Your task to perform on an android device: turn off notifications settings in the gmail app Image 0: 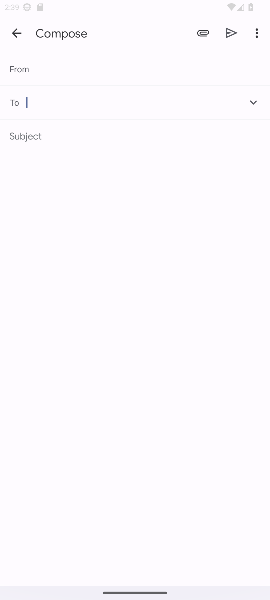
Step 0: click (133, 275)
Your task to perform on an android device: turn off notifications settings in the gmail app Image 1: 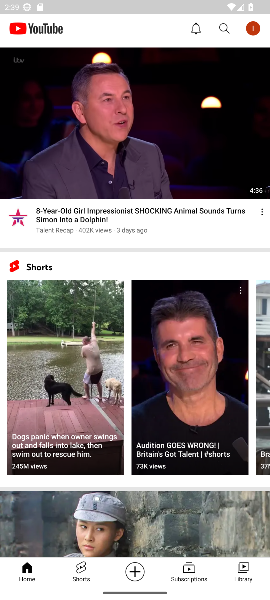
Step 1: press home button
Your task to perform on an android device: turn off notifications settings in the gmail app Image 2: 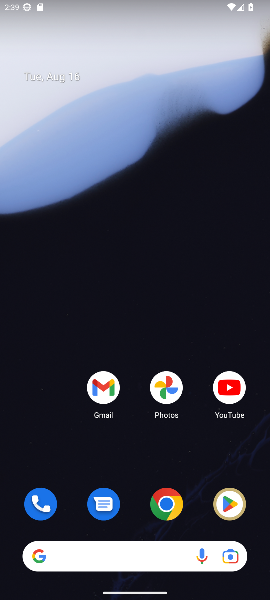
Step 2: click (100, 388)
Your task to perform on an android device: turn off notifications settings in the gmail app Image 3: 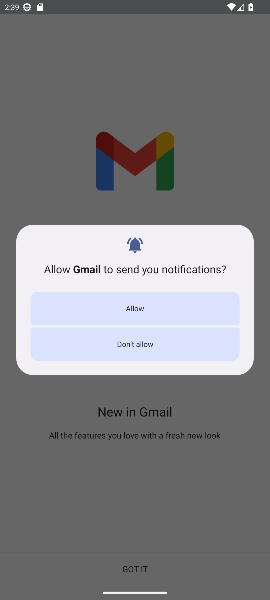
Step 3: click (137, 344)
Your task to perform on an android device: turn off notifications settings in the gmail app Image 4: 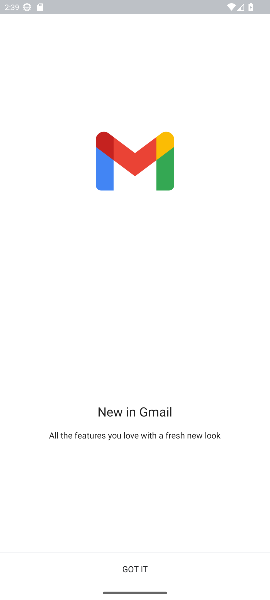
Step 4: click (130, 566)
Your task to perform on an android device: turn off notifications settings in the gmail app Image 5: 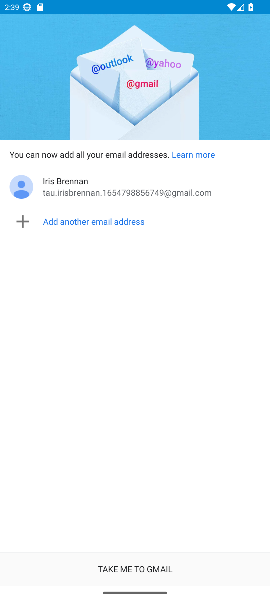
Step 5: click (120, 558)
Your task to perform on an android device: turn off notifications settings in the gmail app Image 6: 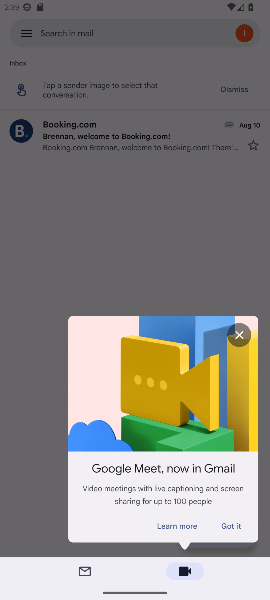
Step 6: click (243, 333)
Your task to perform on an android device: turn off notifications settings in the gmail app Image 7: 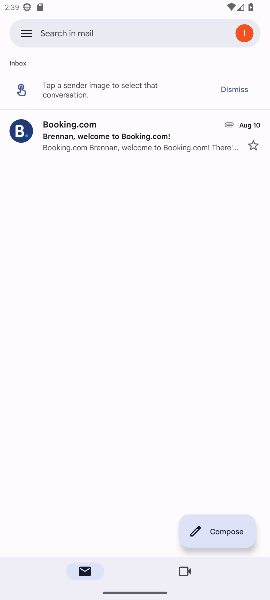
Step 7: click (23, 33)
Your task to perform on an android device: turn off notifications settings in the gmail app Image 8: 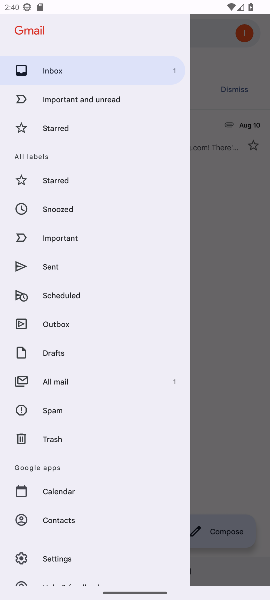
Step 8: click (57, 553)
Your task to perform on an android device: turn off notifications settings in the gmail app Image 9: 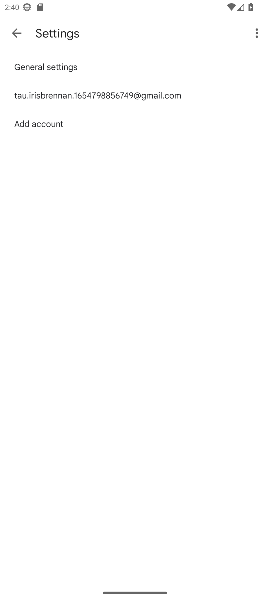
Step 9: click (95, 95)
Your task to perform on an android device: turn off notifications settings in the gmail app Image 10: 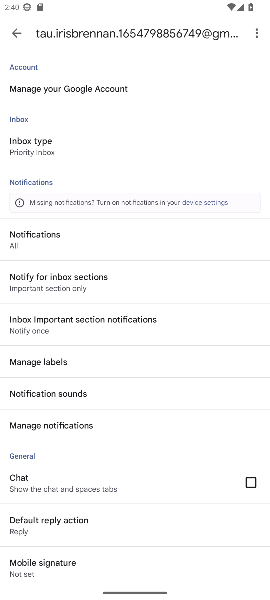
Step 10: click (38, 423)
Your task to perform on an android device: turn off notifications settings in the gmail app Image 11: 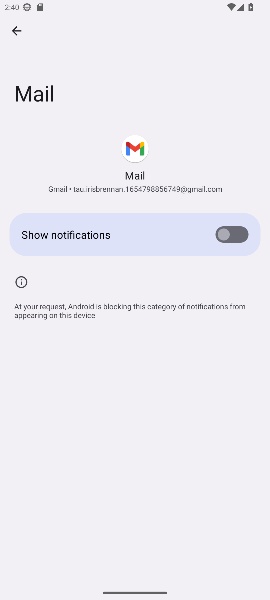
Step 11: task complete